Your task to perform on an android device: Open eBay Image 0: 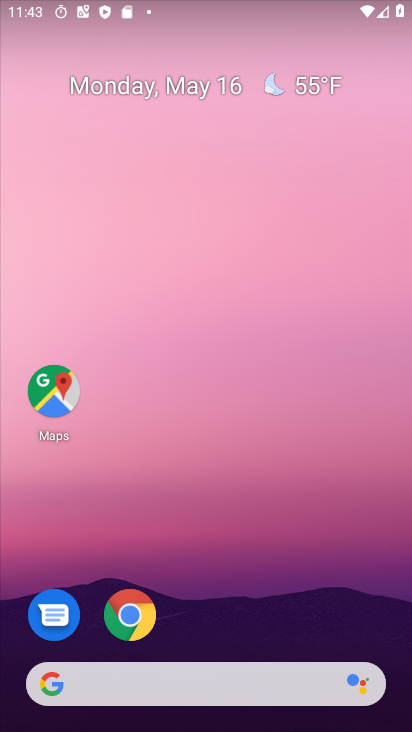
Step 0: click (133, 614)
Your task to perform on an android device: Open eBay Image 1: 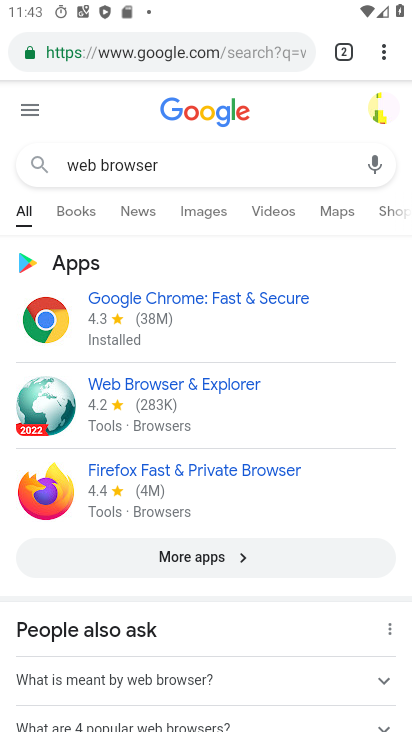
Step 1: click (111, 45)
Your task to perform on an android device: Open eBay Image 2: 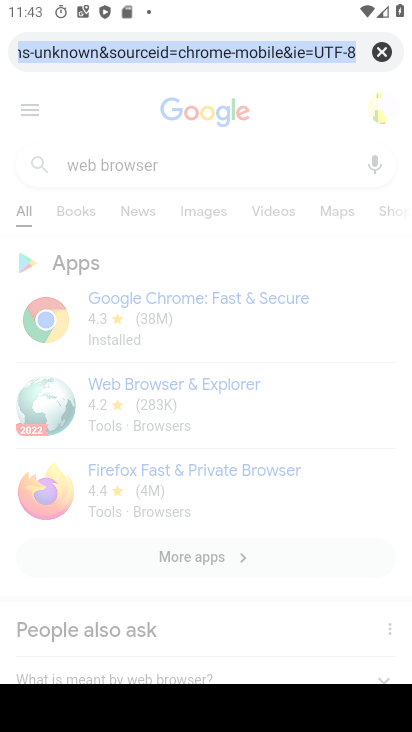
Step 2: click (376, 48)
Your task to perform on an android device: Open eBay Image 3: 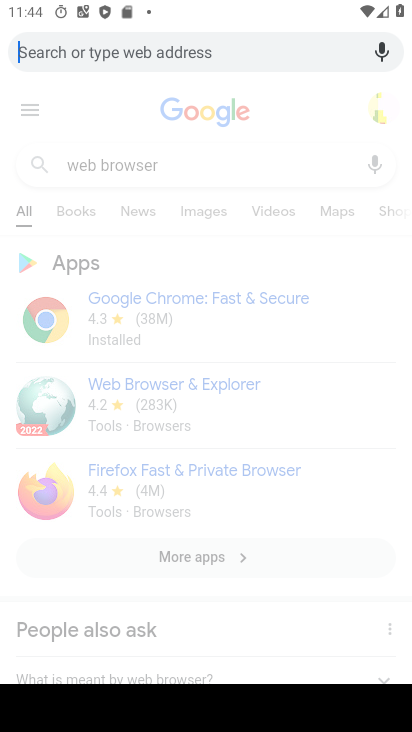
Step 3: type " eBay"
Your task to perform on an android device: Open eBay Image 4: 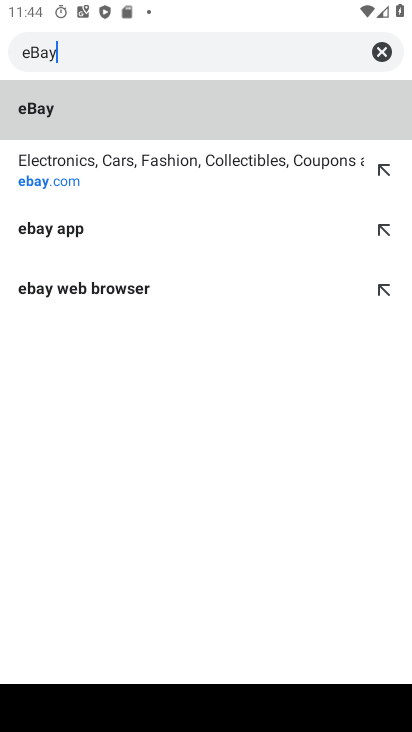
Step 4: click (52, 179)
Your task to perform on an android device: Open eBay Image 5: 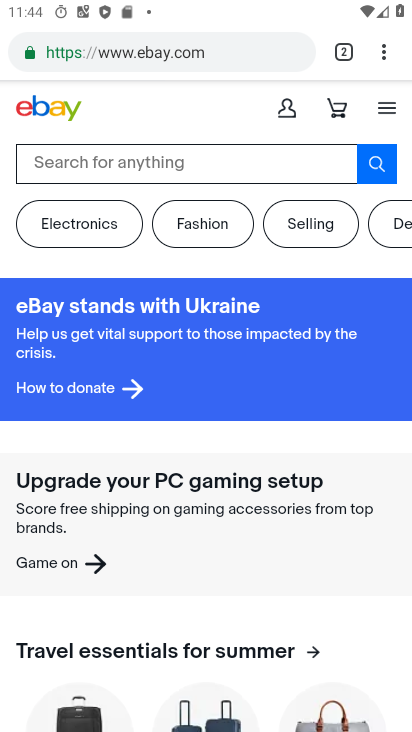
Step 5: task complete